Your task to perform on an android device: change your default location settings in chrome Image 0: 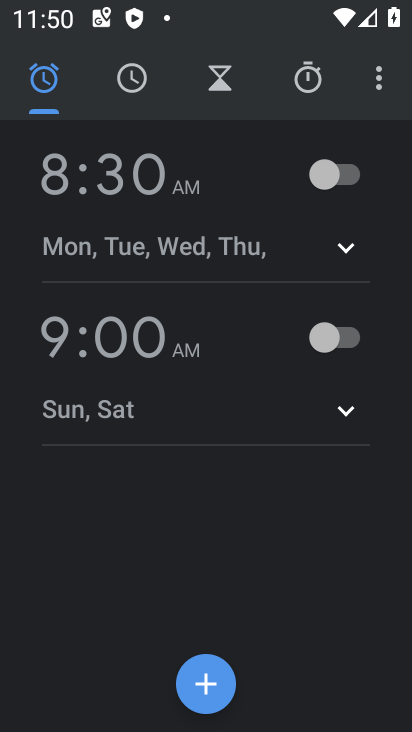
Step 0: press home button
Your task to perform on an android device: change your default location settings in chrome Image 1: 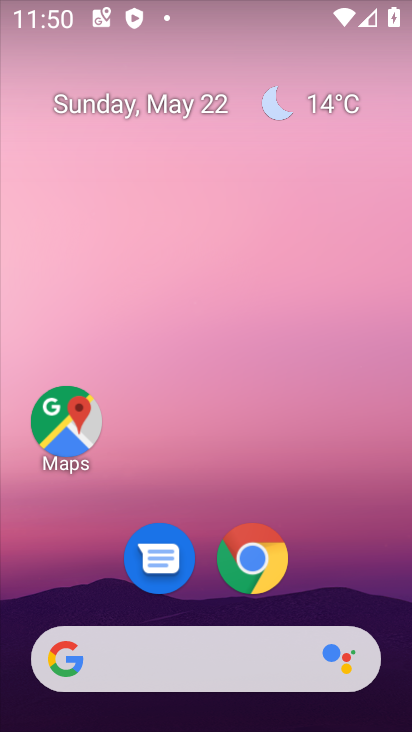
Step 1: click (261, 555)
Your task to perform on an android device: change your default location settings in chrome Image 2: 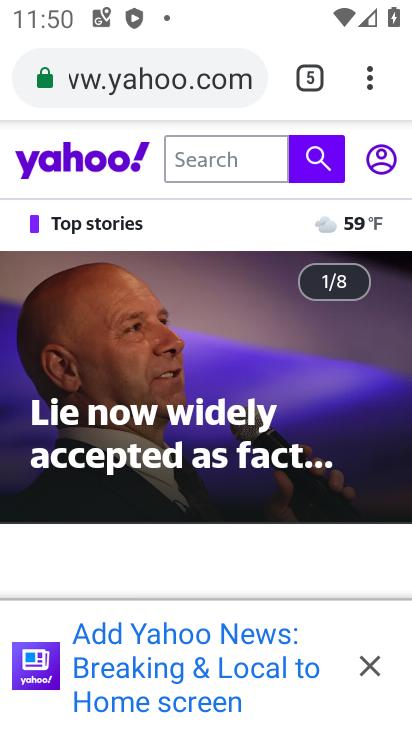
Step 2: click (369, 80)
Your task to perform on an android device: change your default location settings in chrome Image 3: 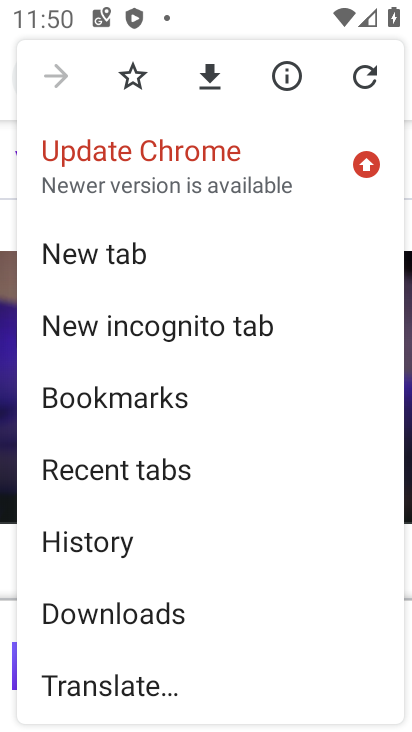
Step 3: drag from (141, 579) to (181, 80)
Your task to perform on an android device: change your default location settings in chrome Image 4: 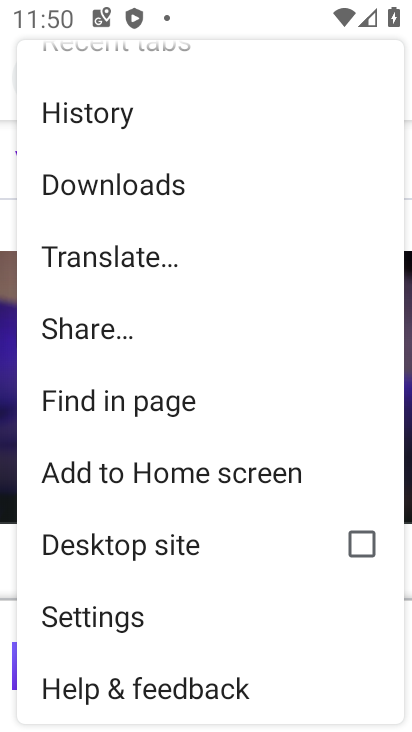
Step 4: click (116, 619)
Your task to perform on an android device: change your default location settings in chrome Image 5: 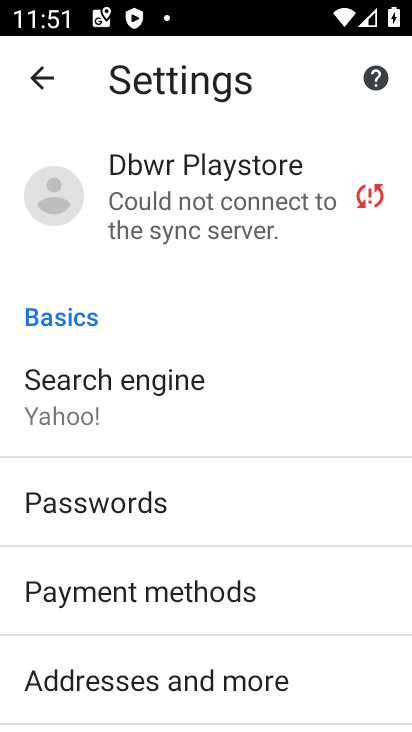
Step 5: drag from (231, 551) to (235, 131)
Your task to perform on an android device: change your default location settings in chrome Image 6: 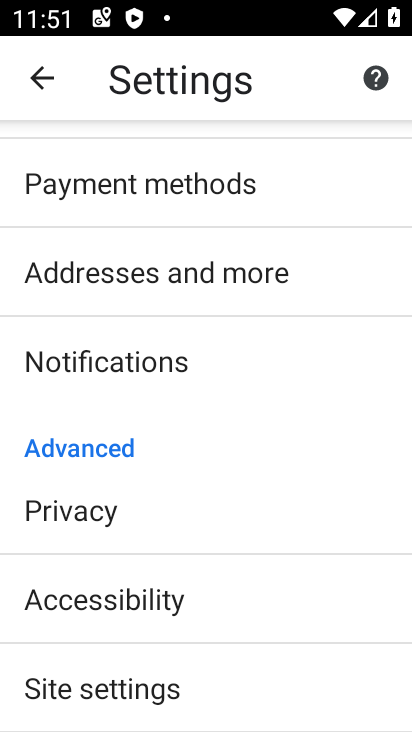
Step 6: drag from (183, 320) to (190, 251)
Your task to perform on an android device: change your default location settings in chrome Image 7: 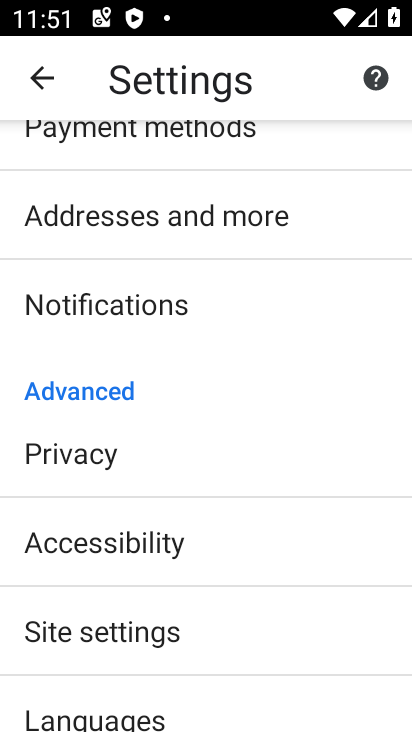
Step 7: drag from (204, 617) to (213, 412)
Your task to perform on an android device: change your default location settings in chrome Image 8: 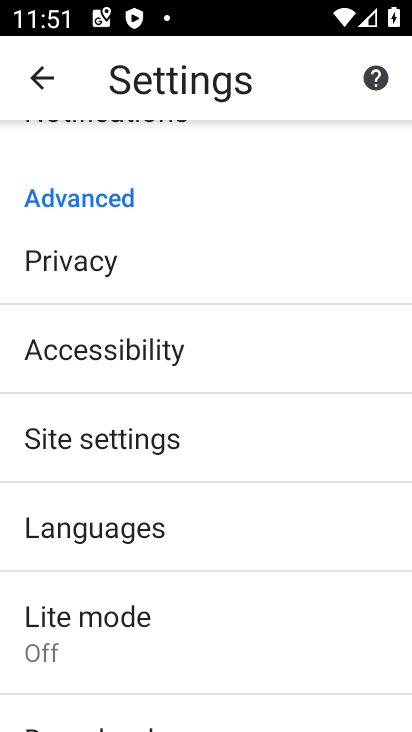
Step 8: click (113, 449)
Your task to perform on an android device: change your default location settings in chrome Image 9: 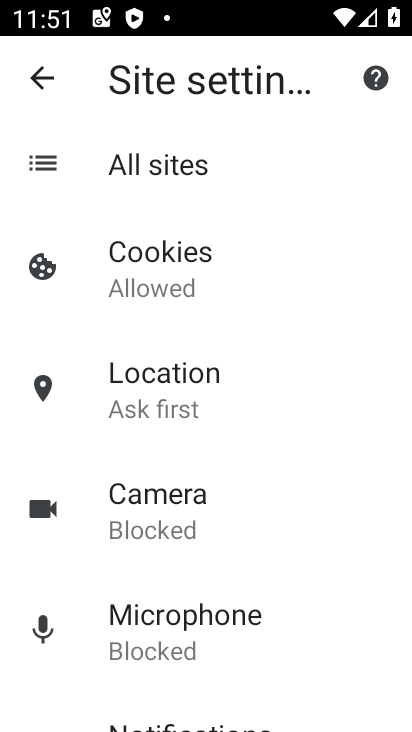
Step 9: click (171, 407)
Your task to perform on an android device: change your default location settings in chrome Image 10: 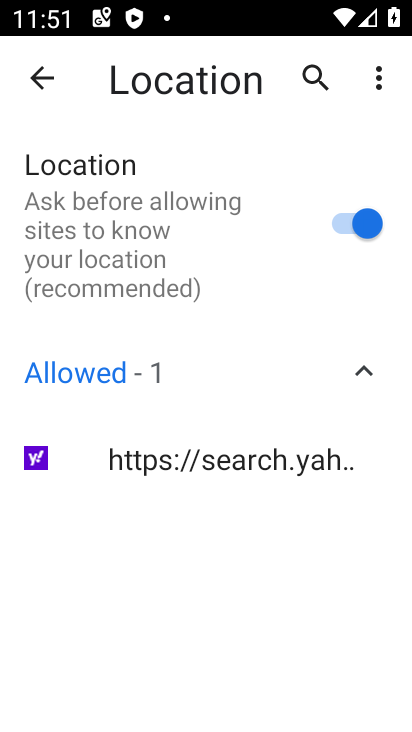
Step 10: click (370, 224)
Your task to perform on an android device: change your default location settings in chrome Image 11: 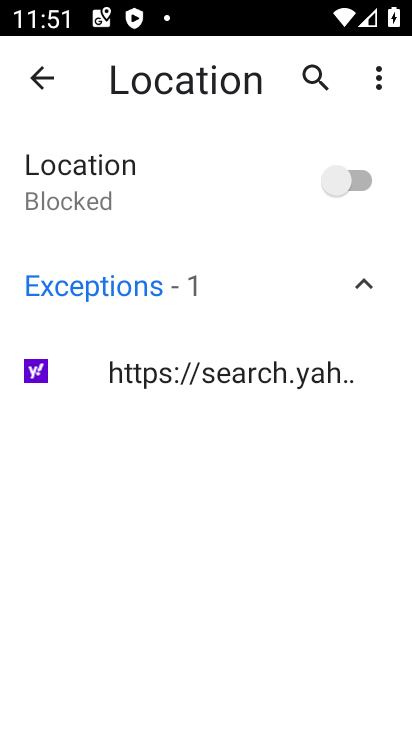
Step 11: task complete